Your task to perform on an android device: choose inbox layout in the gmail app Image 0: 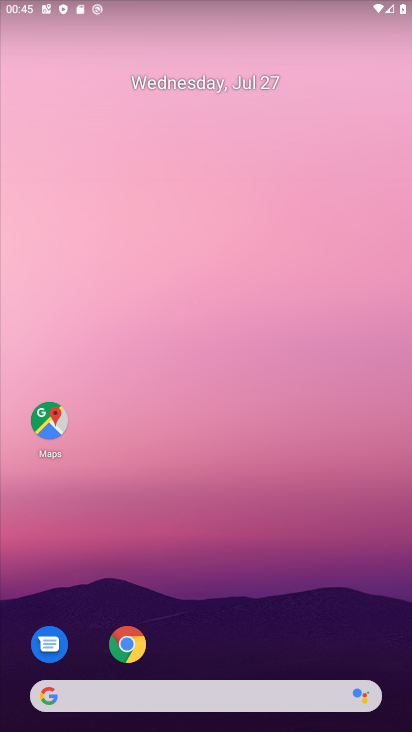
Step 0: drag from (218, 641) to (193, 316)
Your task to perform on an android device: choose inbox layout in the gmail app Image 1: 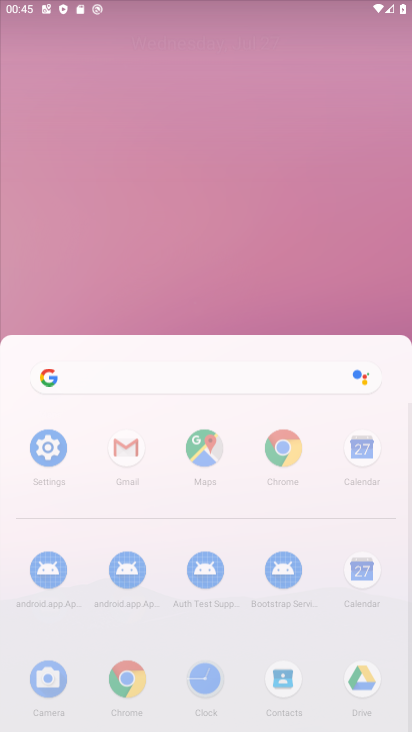
Step 1: drag from (228, 650) to (206, 358)
Your task to perform on an android device: choose inbox layout in the gmail app Image 2: 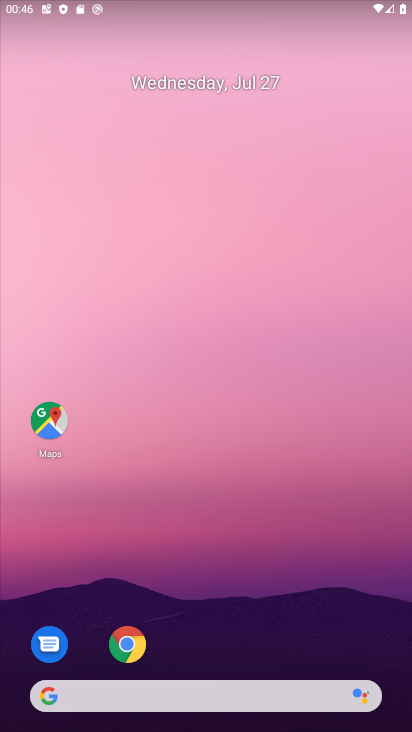
Step 2: drag from (234, 655) to (177, 237)
Your task to perform on an android device: choose inbox layout in the gmail app Image 3: 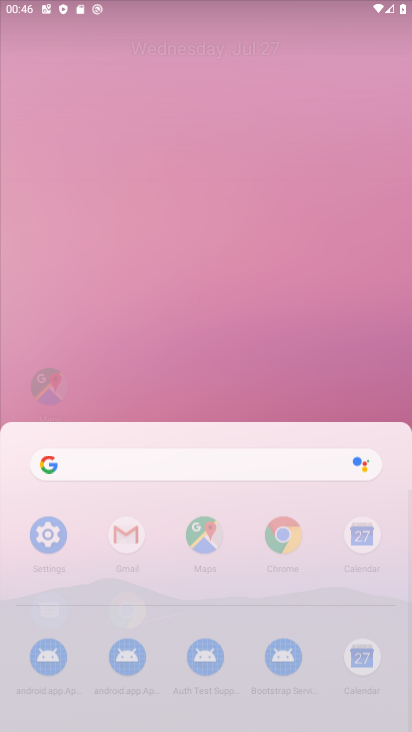
Step 3: drag from (216, 515) to (180, 128)
Your task to perform on an android device: choose inbox layout in the gmail app Image 4: 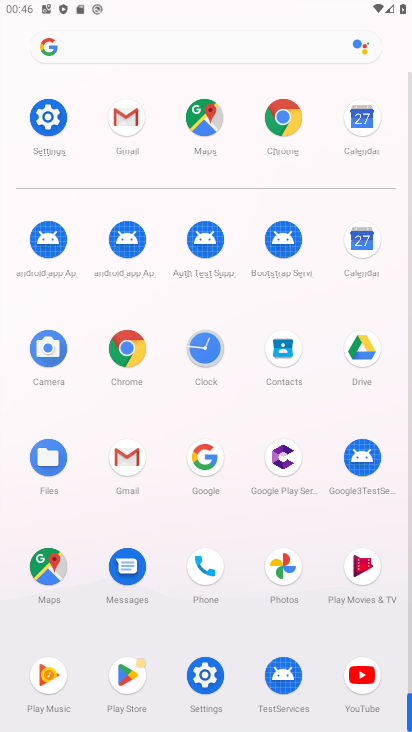
Step 4: drag from (237, 473) to (233, 185)
Your task to perform on an android device: choose inbox layout in the gmail app Image 5: 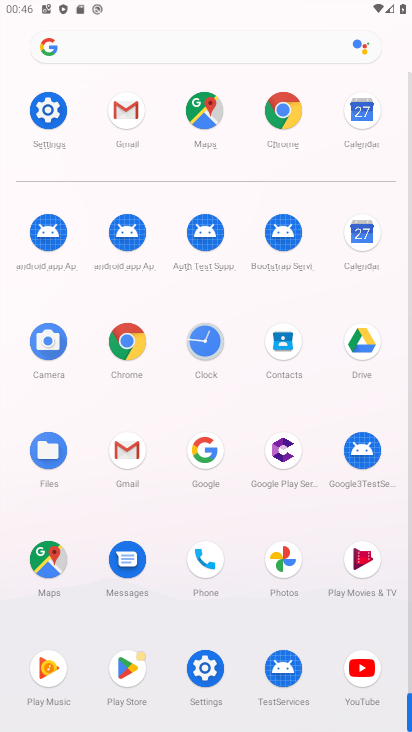
Step 5: click (124, 455)
Your task to perform on an android device: choose inbox layout in the gmail app Image 6: 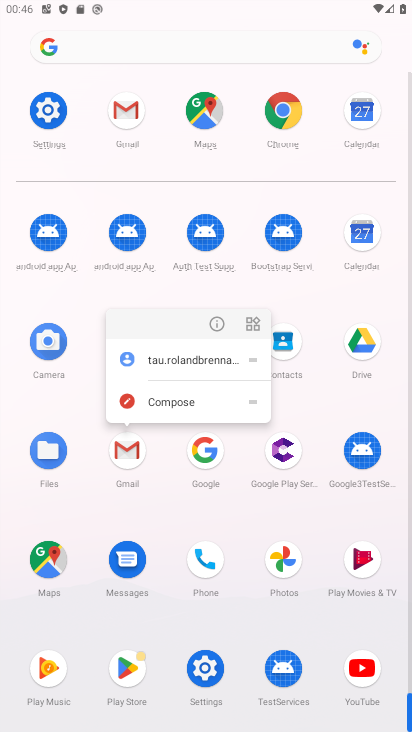
Step 6: click (128, 446)
Your task to perform on an android device: choose inbox layout in the gmail app Image 7: 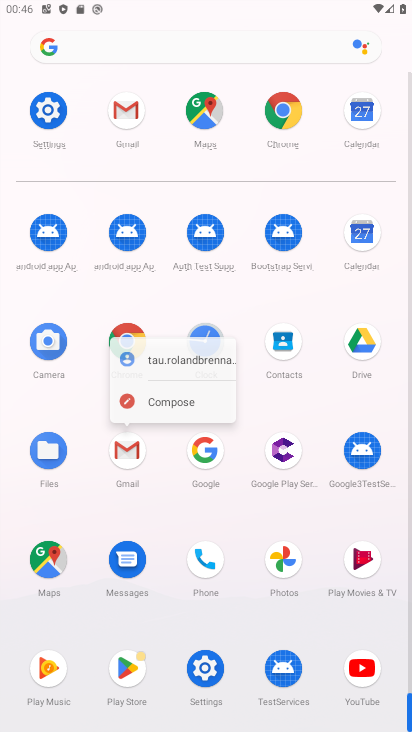
Step 7: click (128, 446)
Your task to perform on an android device: choose inbox layout in the gmail app Image 8: 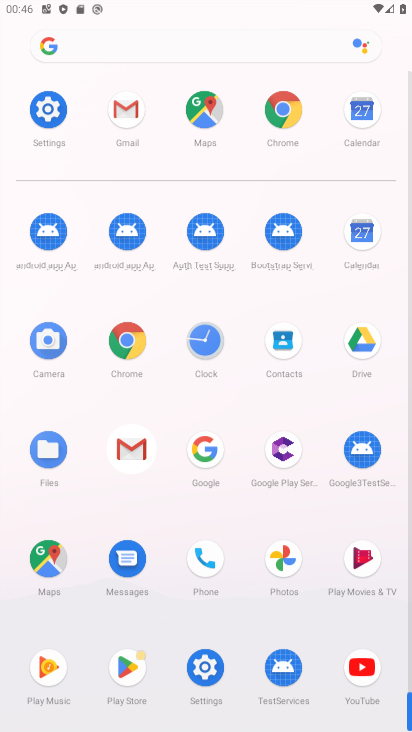
Step 8: click (128, 446)
Your task to perform on an android device: choose inbox layout in the gmail app Image 9: 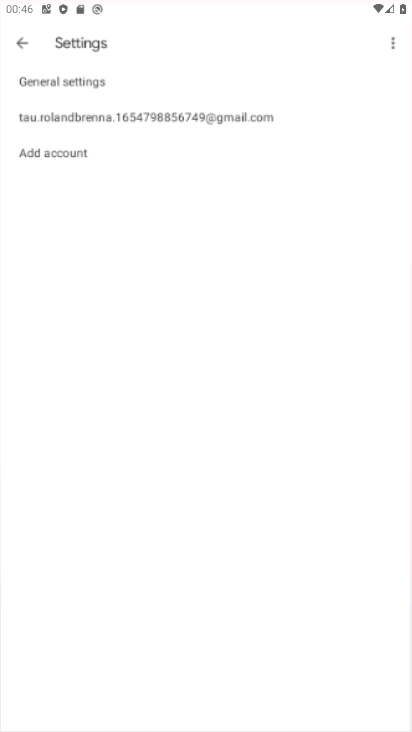
Step 9: click (129, 447)
Your task to perform on an android device: choose inbox layout in the gmail app Image 10: 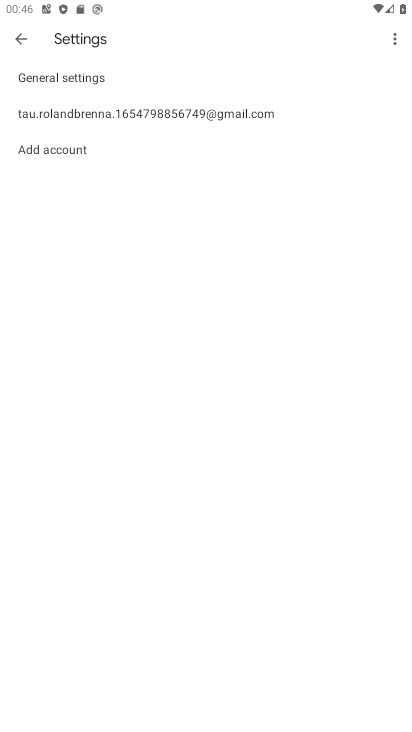
Step 10: click (71, 111)
Your task to perform on an android device: choose inbox layout in the gmail app Image 11: 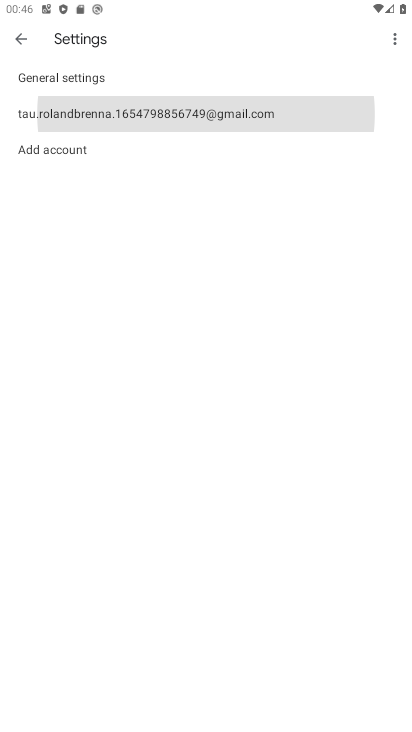
Step 11: click (72, 111)
Your task to perform on an android device: choose inbox layout in the gmail app Image 12: 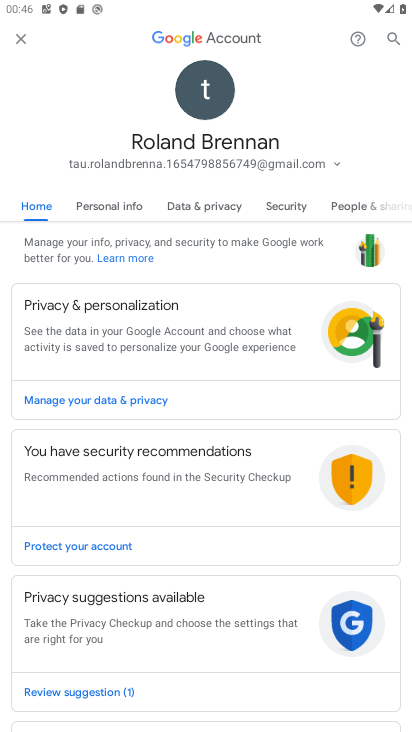
Step 12: click (26, 40)
Your task to perform on an android device: choose inbox layout in the gmail app Image 13: 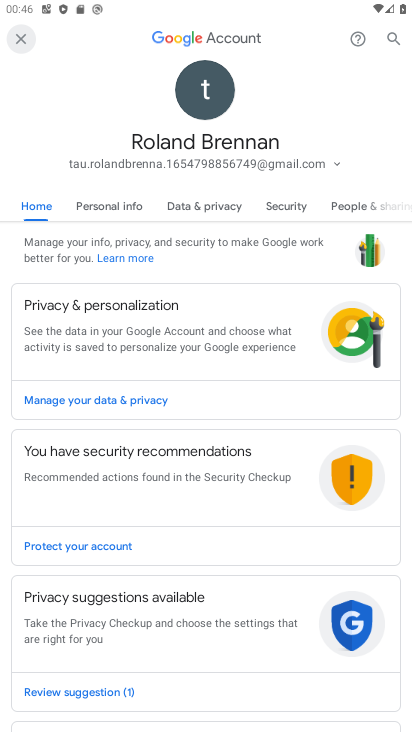
Step 13: click (25, 39)
Your task to perform on an android device: choose inbox layout in the gmail app Image 14: 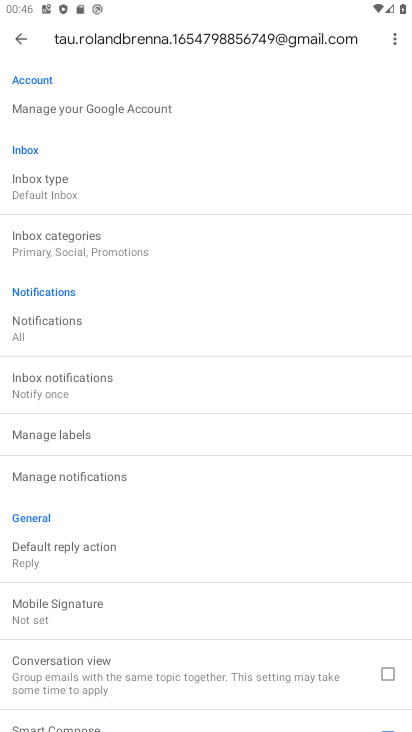
Step 14: click (57, 183)
Your task to perform on an android device: choose inbox layout in the gmail app Image 15: 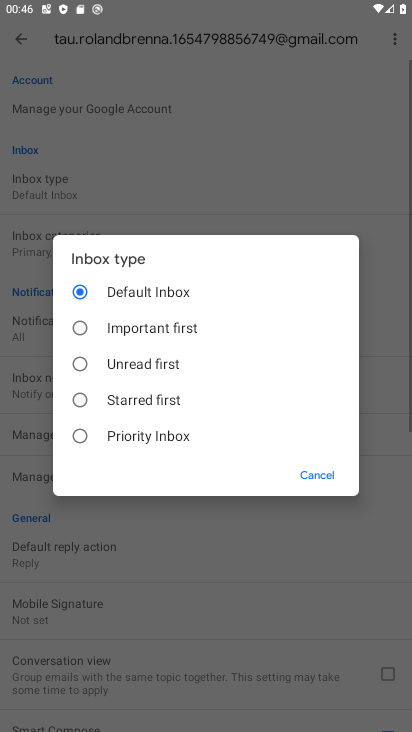
Step 15: task complete